Your task to perform on an android device: check data usage Image 0: 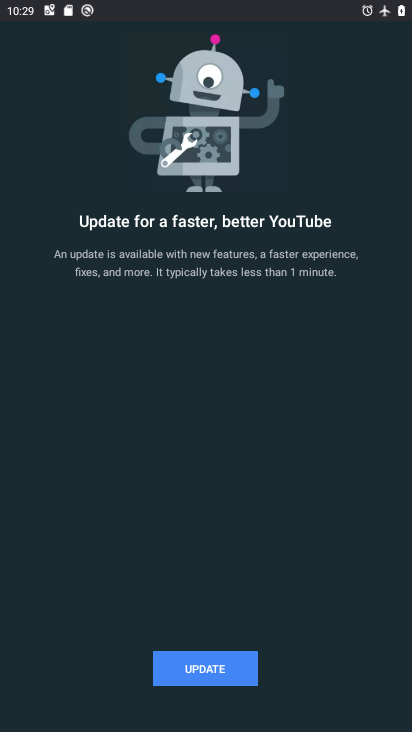
Step 0: press home button
Your task to perform on an android device: check data usage Image 1: 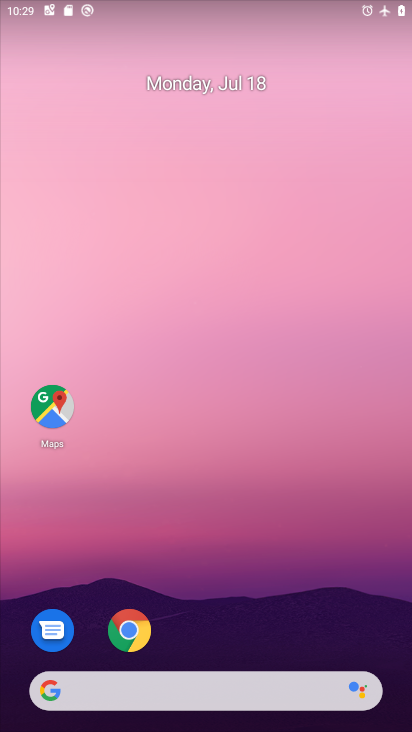
Step 1: drag from (207, 620) to (213, 187)
Your task to perform on an android device: check data usage Image 2: 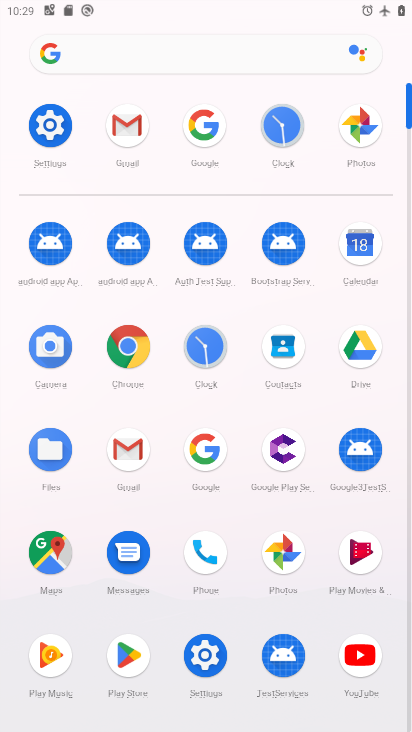
Step 2: click (32, 130)
Your task to perform on an android device: check data usage Image 3: 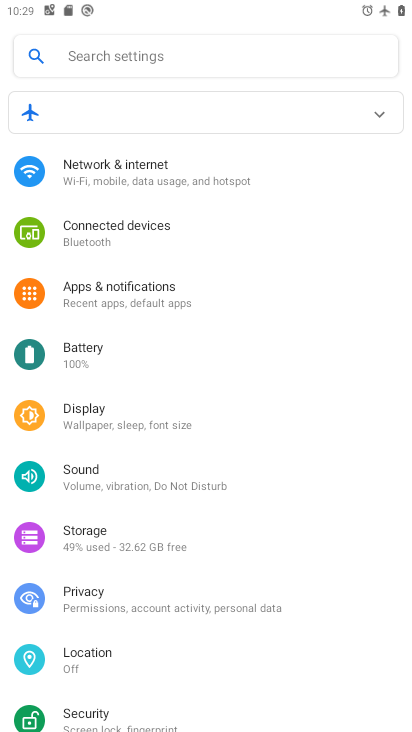
Step 3: click (146, 188)
Your task to perform on an android device: check data usage Image 4: 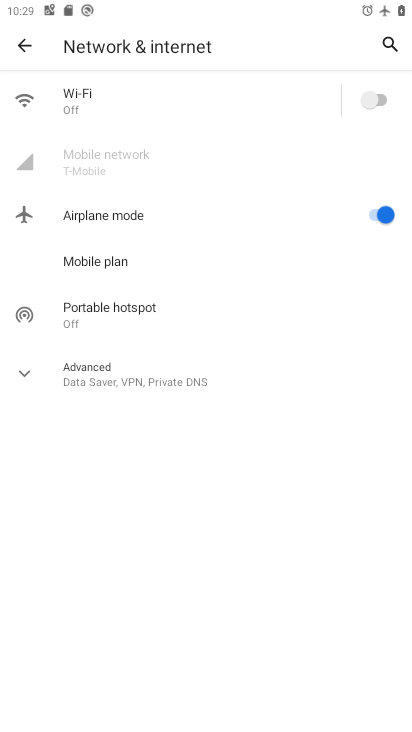
Step 4: click (105, 175)
Your task to perform on an android device: check data usage Image 5: 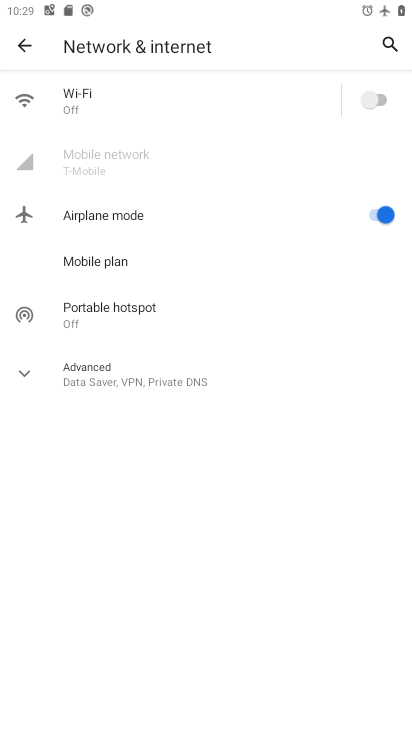
Step 5: click (185, 161)
Your task to perform on an android device: check data usage Image 6: 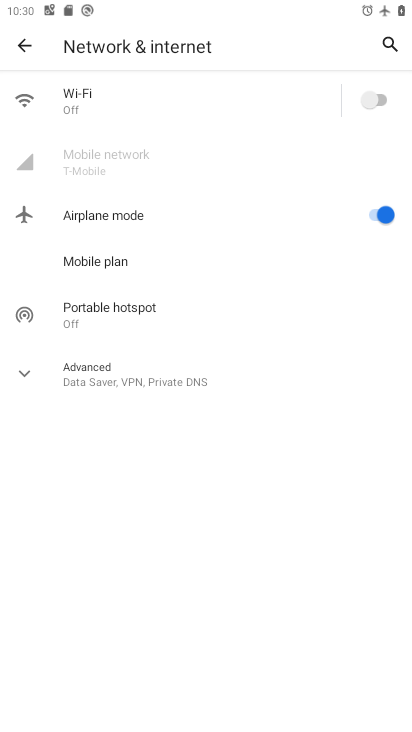
Step 6: click (228, 149)
Your task to perform on an android device: check data usage Image 7: 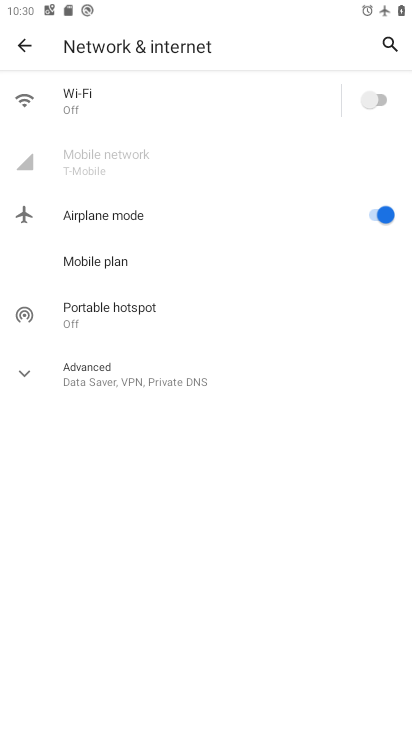
Step 7: task complete